Your task to perform on an android device: Open the calendar and show me this week's events? Image 0: 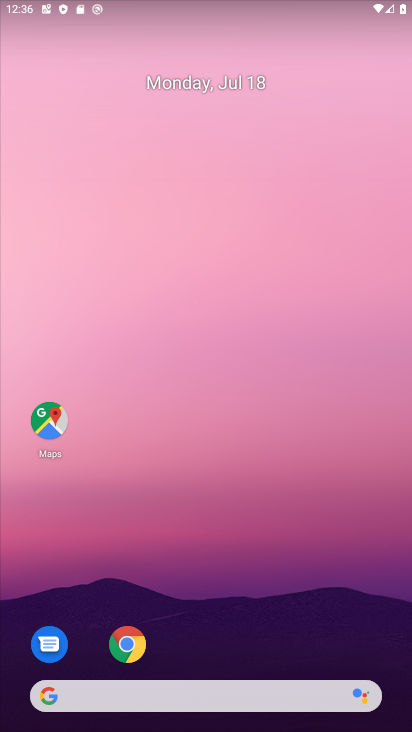
Step 0: press home button
Your task to perform on an android device: Open the calendar and show me this week's events? Image 1: 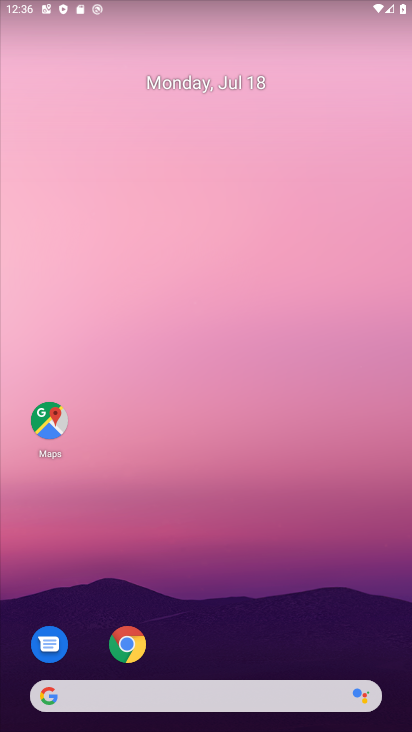
Step 1: drag from (227, 646) to (211, 20)
Your task to perform on an android device: Open the calendar and show me this week's events? Image 2: 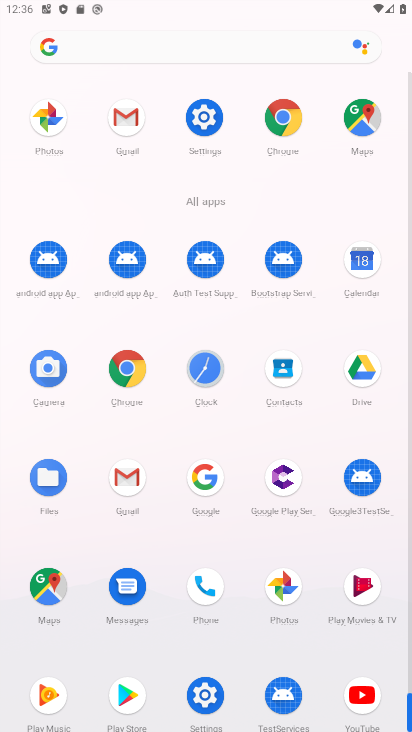
Step 2: click (360, 260)
Your task to perform on an android device: Open the calendar and show me this week's events? Image 3: 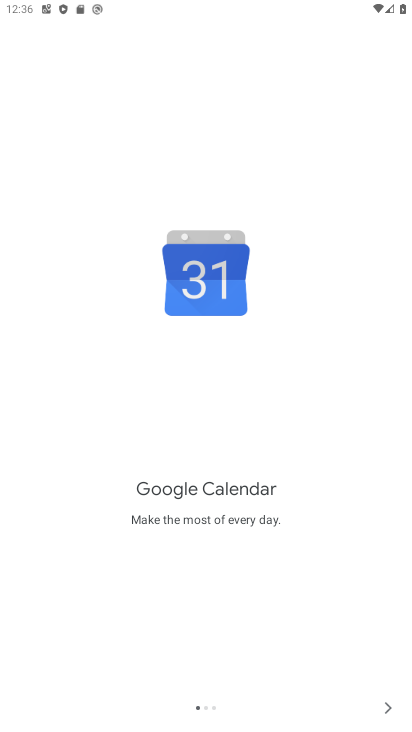
Step 3: click (383, 703)
Your task to perform on an android device: Open the calendar and show me this week's events? Image 4: 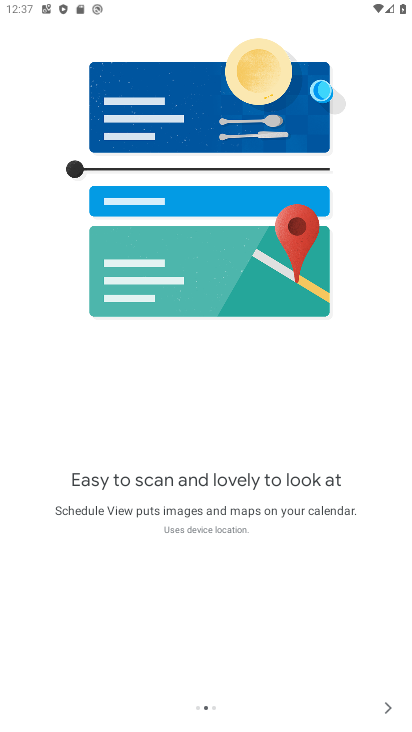
Step 4: click (387, 702)
Your task to perform on an android device: Open the calendar and show me this week's events? Image 5: 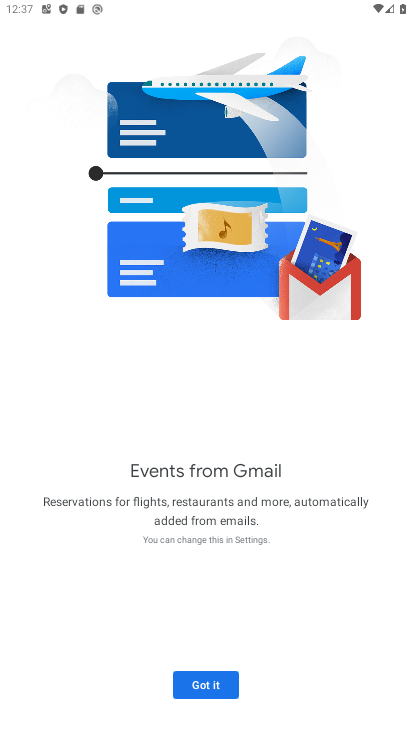
Step 5: click (209, 682)
Your task to perform on an android device: Open the calendar and show me this week's events? Image 6: 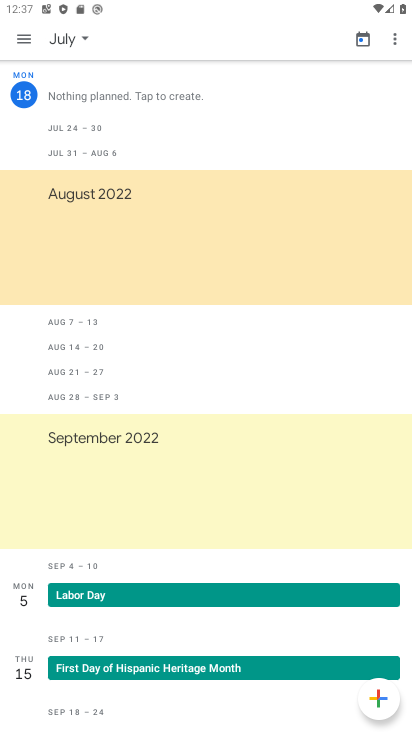
Step 6: click (24, 43)
Your task to perform on an android device: Open the calendar and show me this week's events? Image 7: 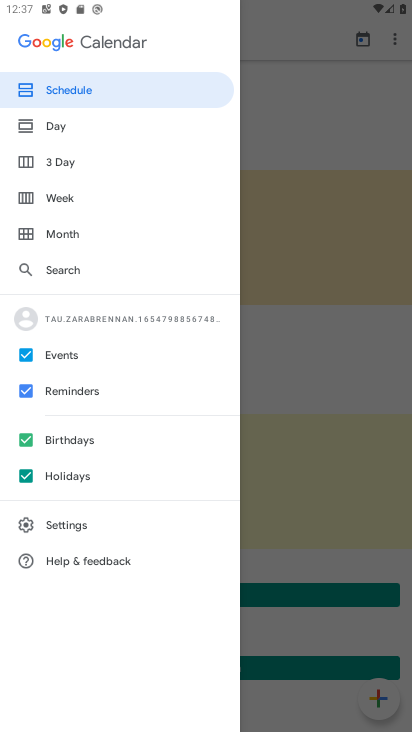
Step 7: click (67, 197)
Your task to perform on an android device: Open the calendar and show me this week's events? Image 8: 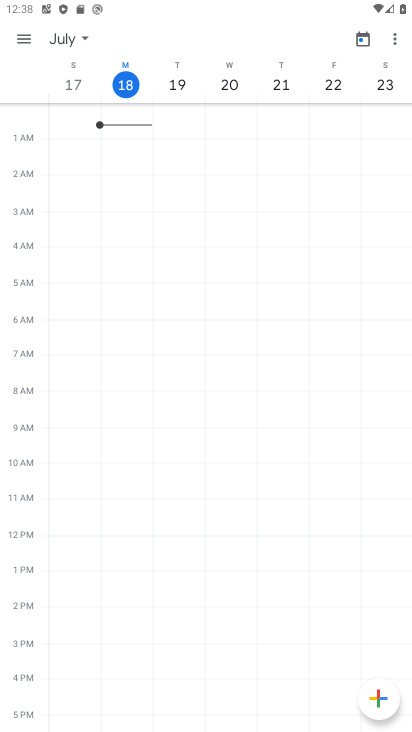
Step 8: drag from (380, 89) to (68, 80)
Your task to perform on an android device: Open the calendar and show me this week's events? Image 9: 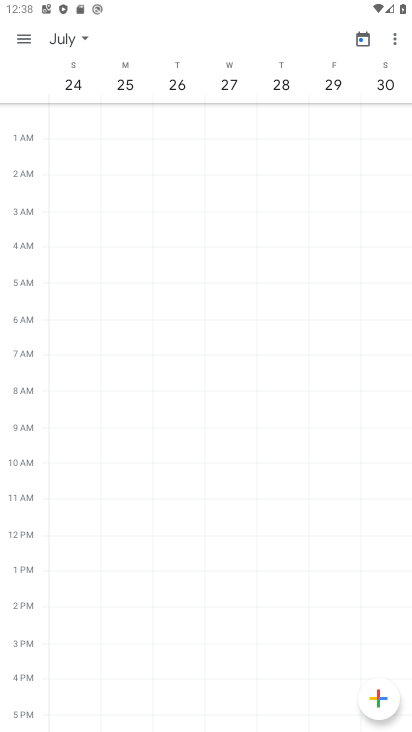
Step 9: drag from (375, 78) to (24, 87)
Your task to perform on an android device: Open the calendar and show me this week's events? Image 10: 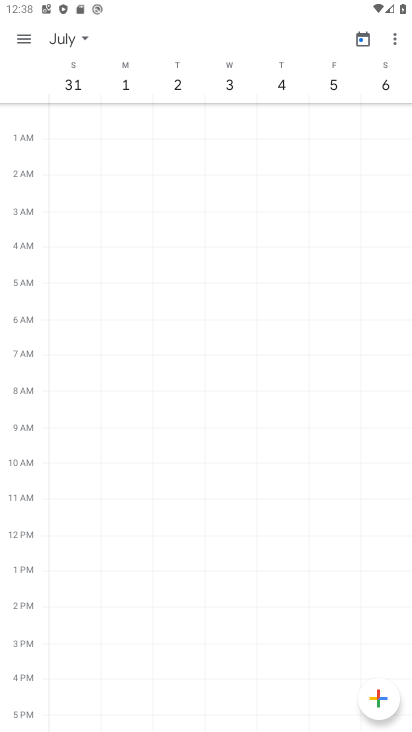
Step 10: drag from (385, 86) to (72, 85)
Your task to perform on an android device: Open the calendar and show me this week's events? Image 11: 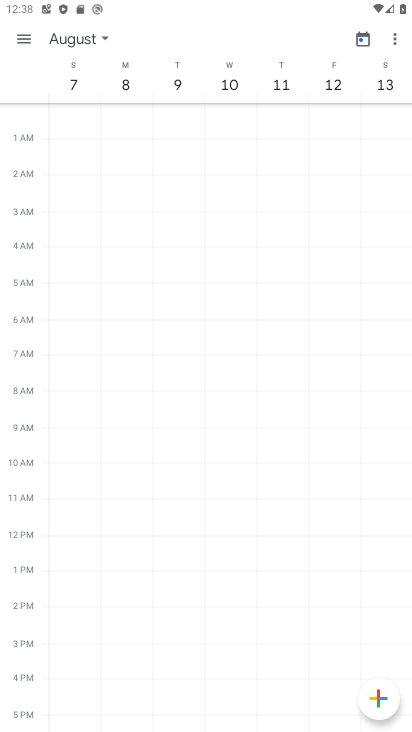
Step 11: drag from (70, 87) to (401, 110)
Your task to perform on an android device: Open the calendar and show me this week's events? Image 12: 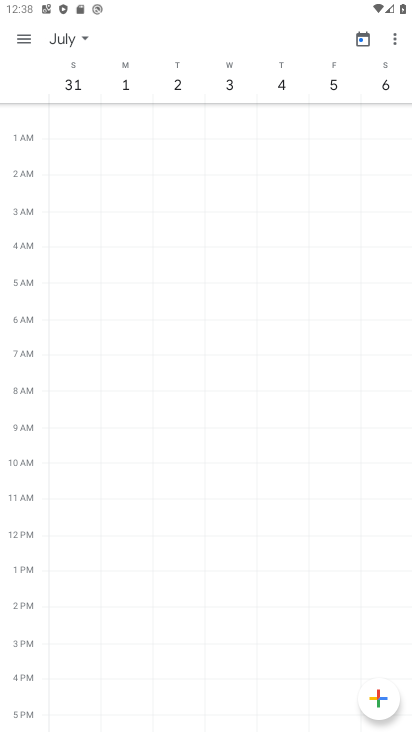
Step 12: drag from (76, 85) to (393, 101)
Your task to perform on an android device: Open the calendar and show me this week's events? Image 13: 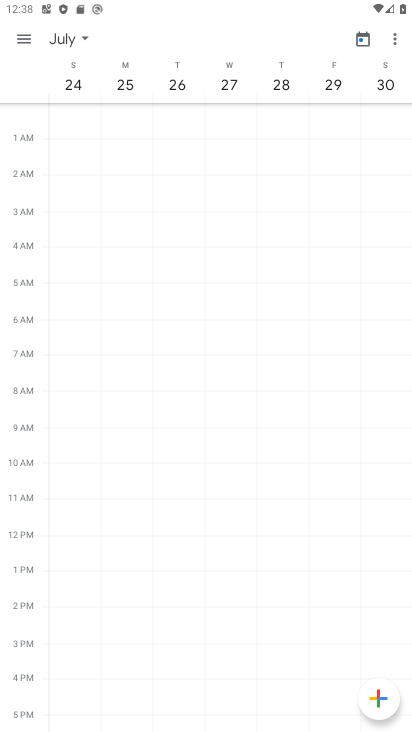
Step 13: drag from (66, 83) to (407, 89)
Your task to perform on an android device: Open the calendar and show me this week's events? Image 14: 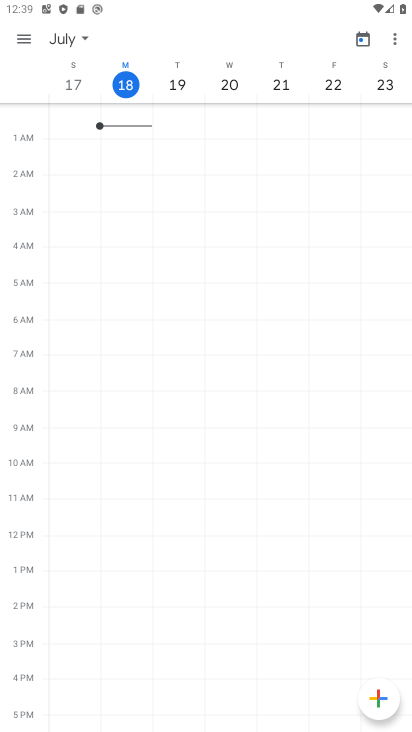
Step 14: click (335, 82)
Your task to perform on an android device: Open the calendar and show me this week's events? Image 15: 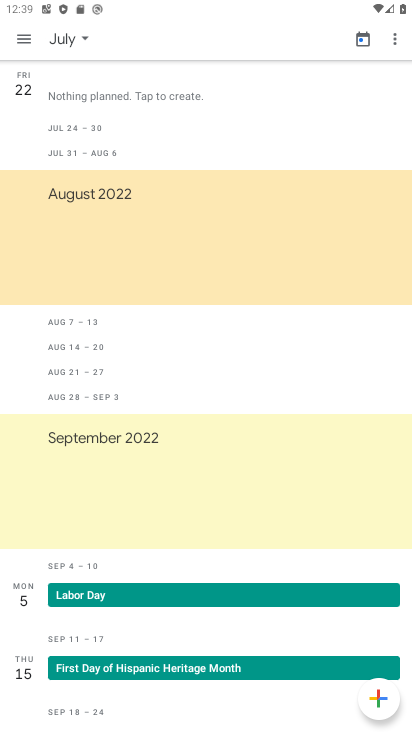
Step 15: task complete